Your task to perform on an android device: turn on javascript in the chrome app Image 0: 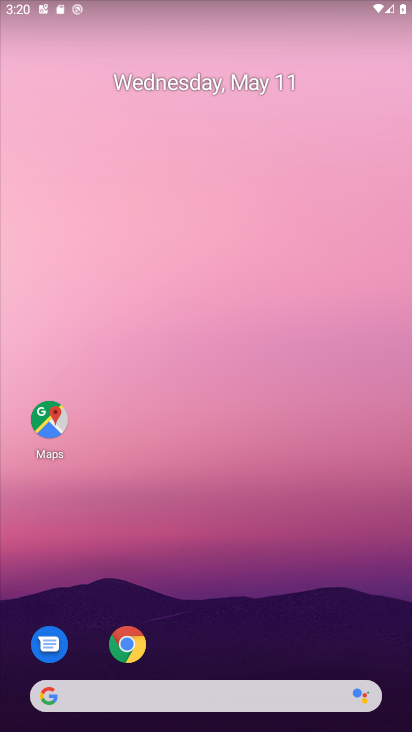
Step 0: click (188, 707)
Your task to perform on an android device: turn on javascript in the chrome app Image 1: 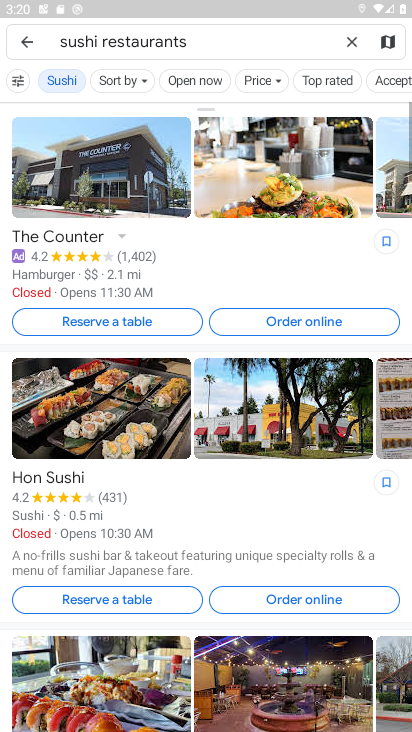
Step 1: press home button
Your task to perform on an android device: turn on javascript in the chrome app Image 2: 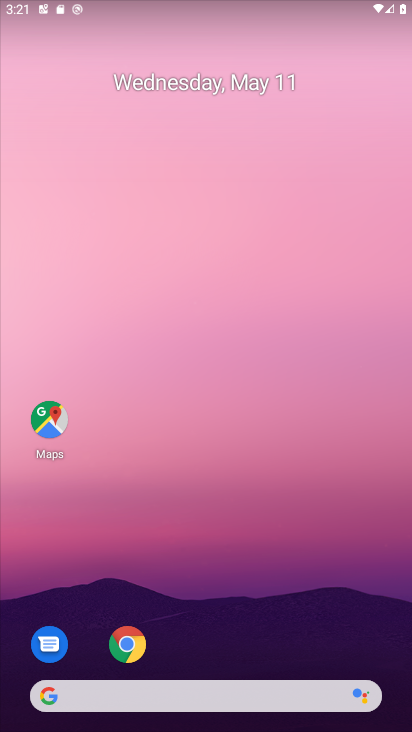
Step 2: click (128, 657)
Your task to perform on an android device: turn on javascript in the chrome app Image 3: 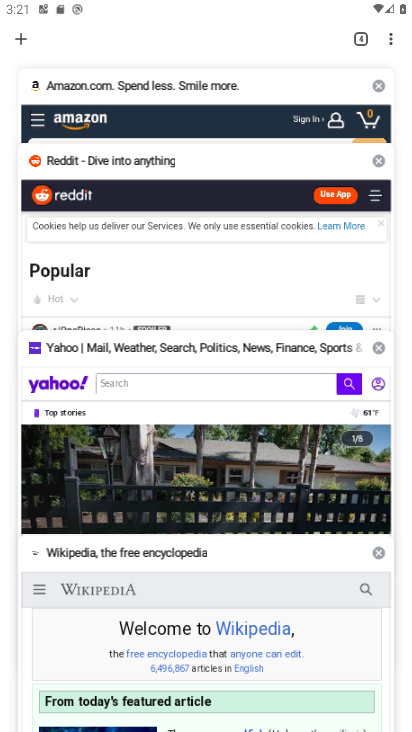
Step 3: drag from (388, 32) to (274, 133)
Your task to perform on an android device: turn on javascript in the chrome app Image 4: 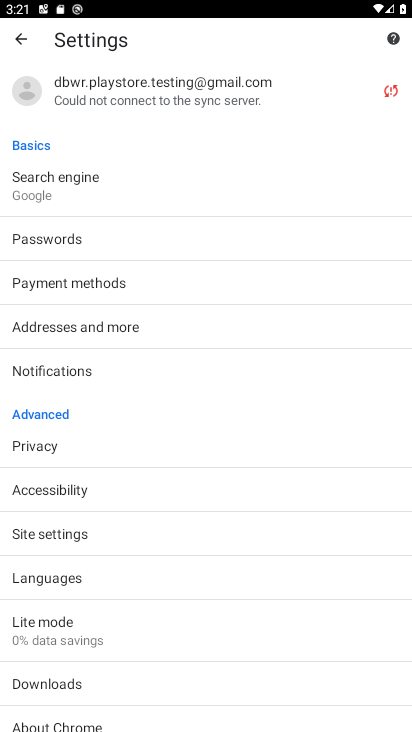
Step 4: drag from (170, 587) to (162, 166)
Your task to perform on an android device: turn on javascript in the chrome app Image 5: 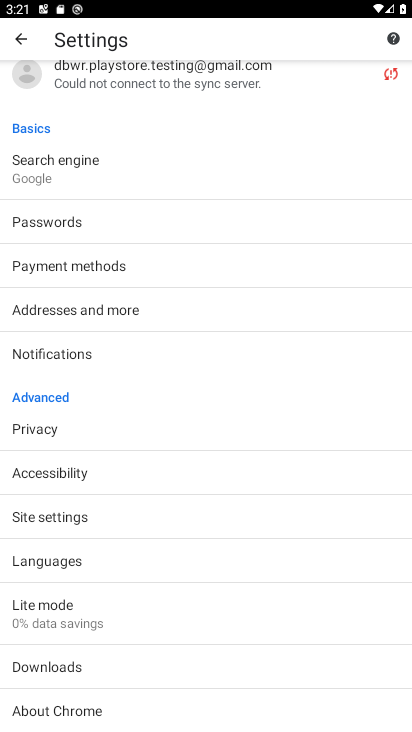
Step 5: click (37, 502)
Your task to perform on an android device: turn on javascript in the chrome app Image 6: 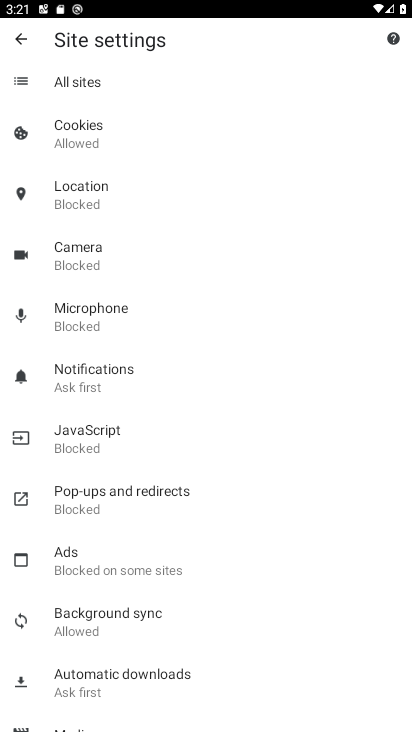
Step 6: click (93, 438)
Your task to perform on an android device: turn on javascript in the chrome app Image 7: 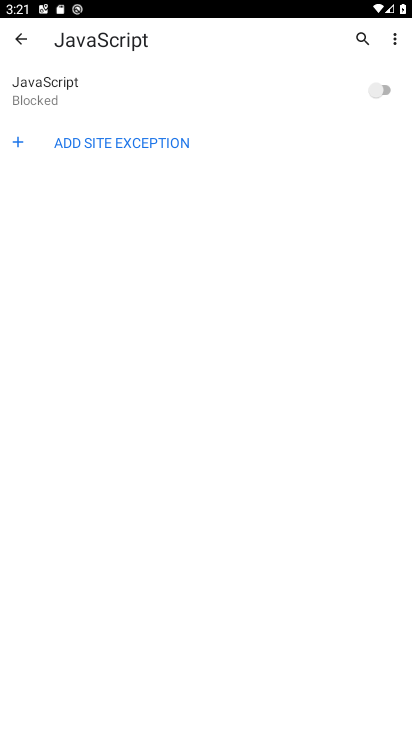
Step 7: click (377, 104)
Your task to perform on an android device: turn on javascript in the chrome app Image 8: 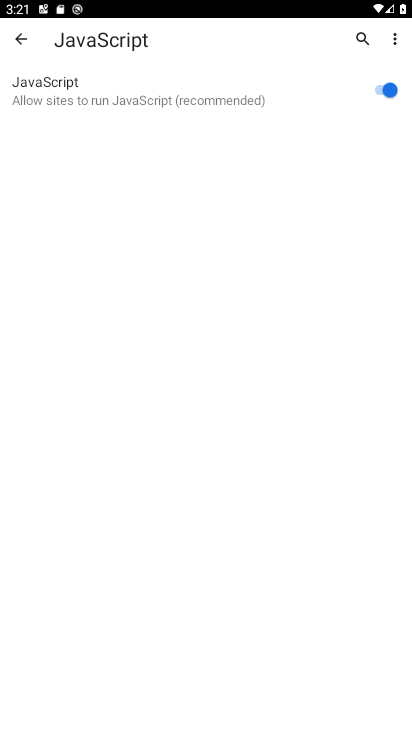
Step 8: task complete